Your task to perform on an android device: uninstall "Facebook Lite" Image 0: 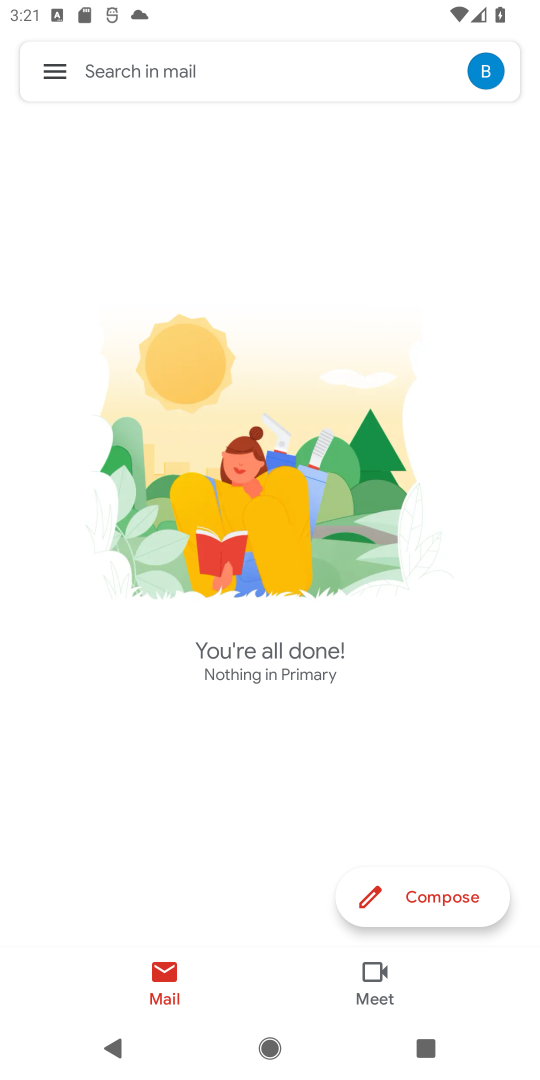
Step 0: press home button
Your task to perform on an android device: uninstall "Facebook Lite" Image 1: 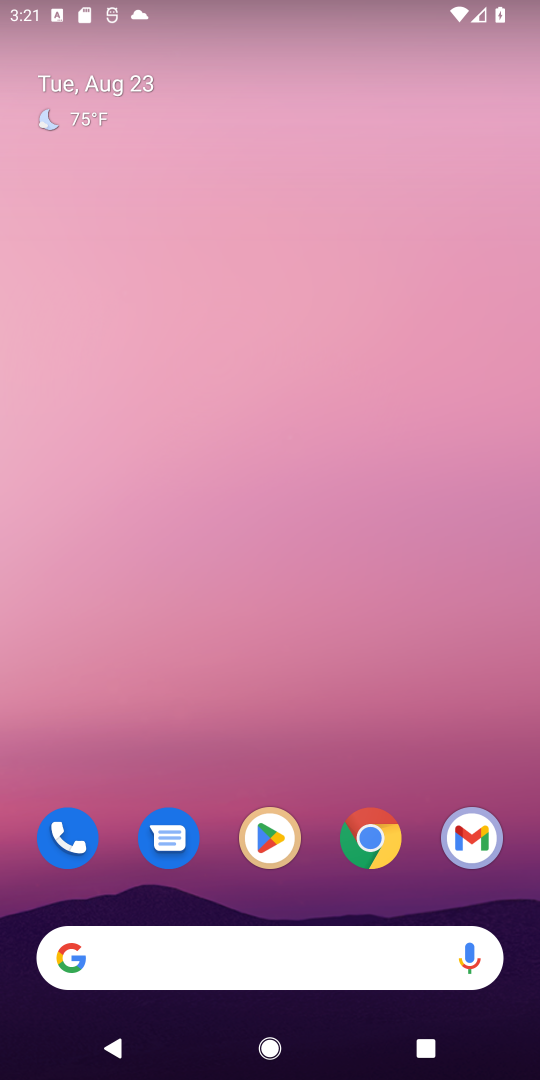
Step 1: click (280, 858)
Your task to perform on an android device: uninstall "Facebook Lite" Image 2: 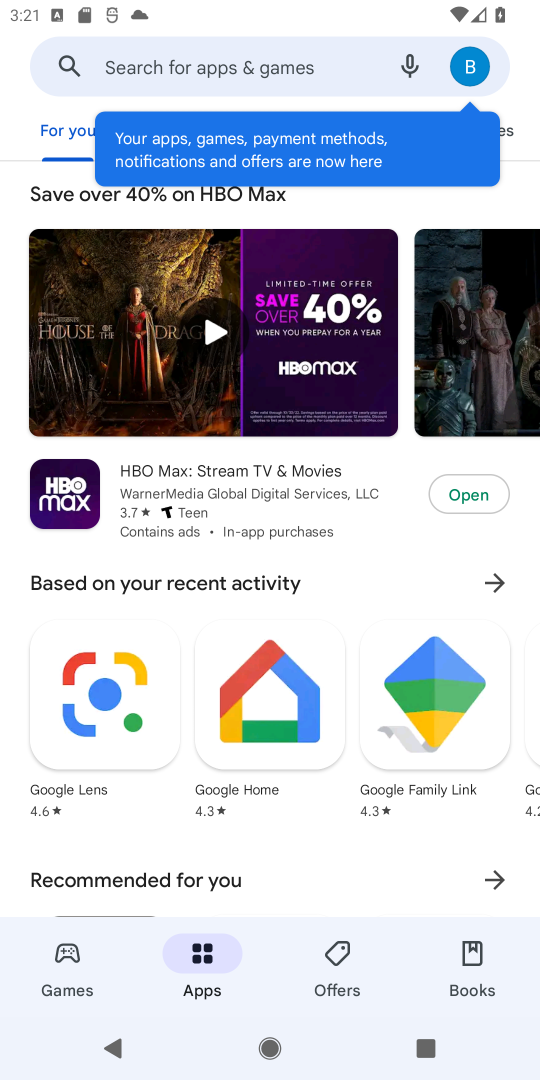
Step 2: click (239, 75)
Your task to perform on an android device: uninstall "Facebook Lite" Image 3: 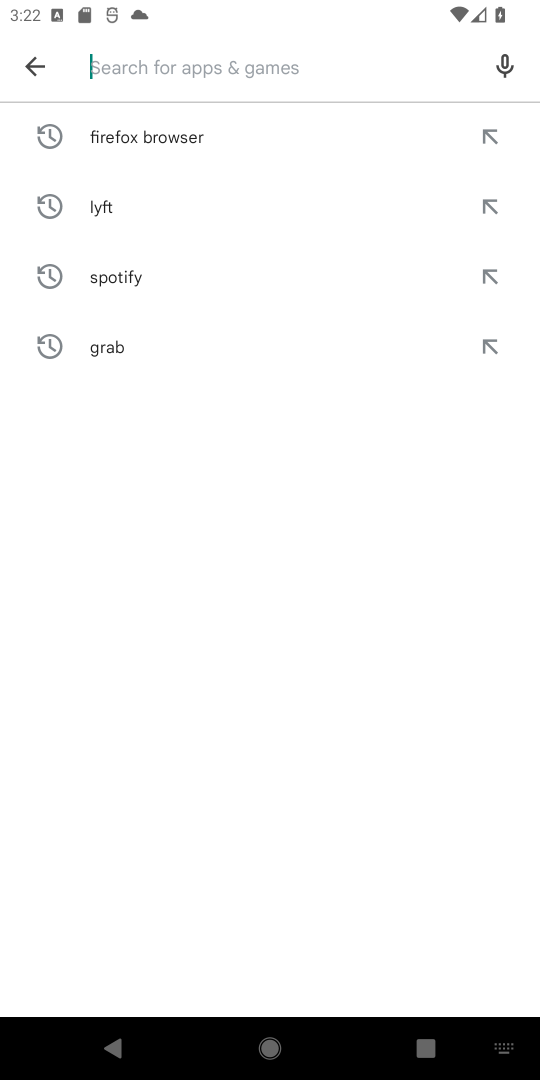
Step 3: type "Facebook Lite"
Your task to perform on an android device: uninstall "Facebook Lite" Image 4: 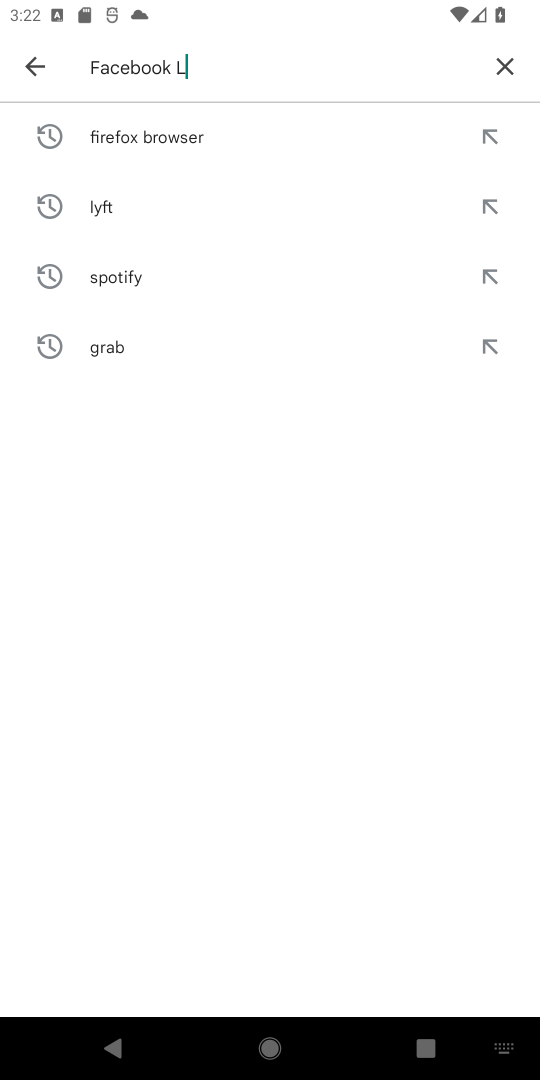
Step 4: type ""
Your task to perform on an android device: uninstall "Facebook Lite" Image 5: 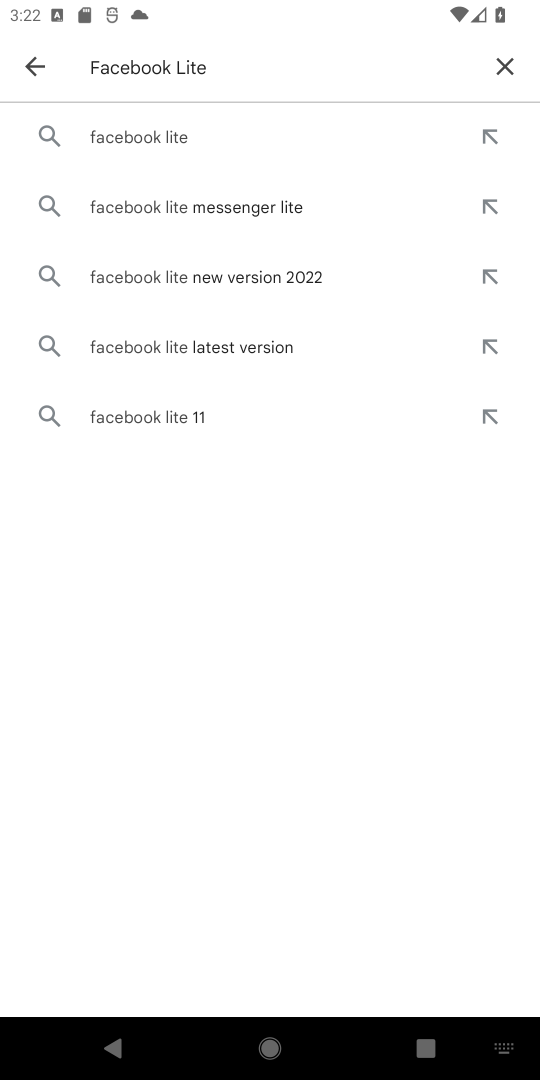
Step 5: click (111, 135)
Your task to perform on an android device: uninstall "Facebook Lite" Image 6: 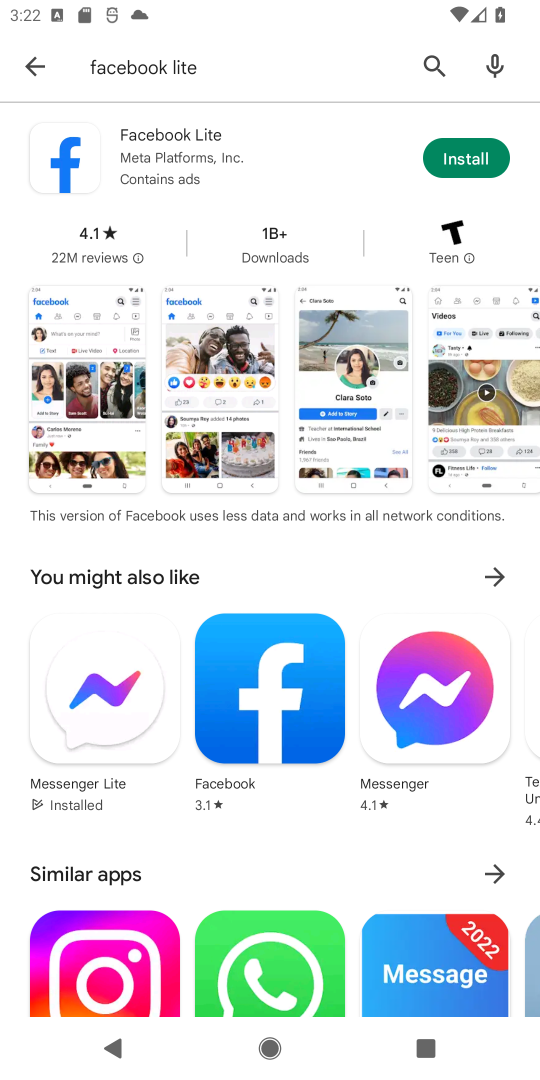
Step 6: task complete